Your task to perform on an android device: Search for Mexican restaurants on Maps Image 0: 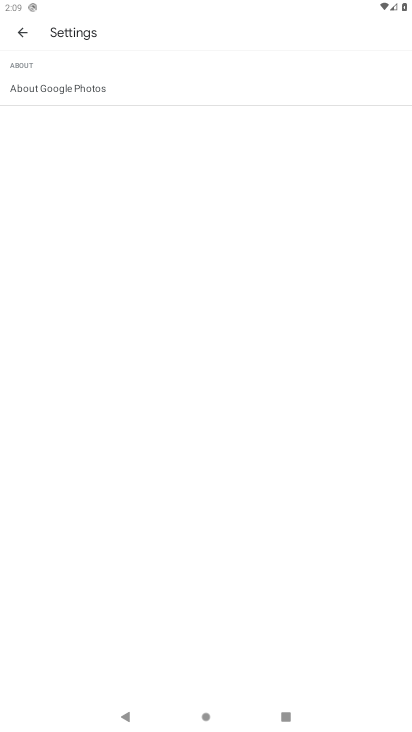
Step 0: press home button
Your task to perform on an android device: Search for Mexican restaurants on Maps Image 1: 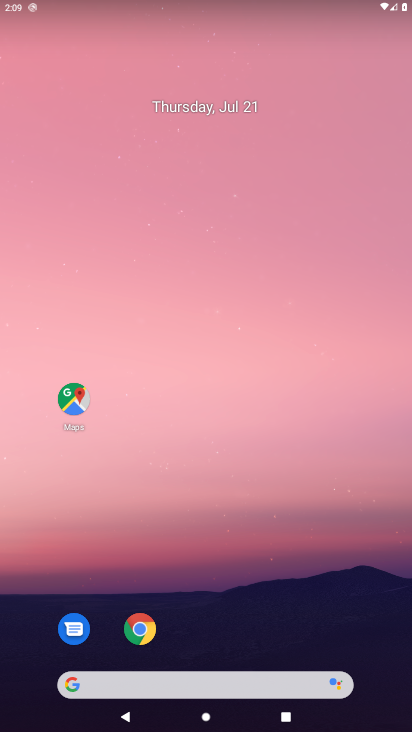
Step 1: click (70, 407)
Your task to perform on an android device: Search for Mexican restaurants on Maps Image 2: 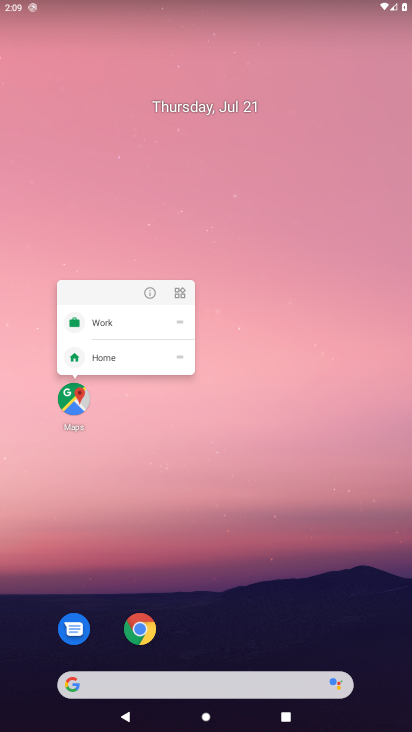
Step 2: click (76, 396)
Your task to perform on an android device: Search for Mexican restaurants on Maps Image 3: 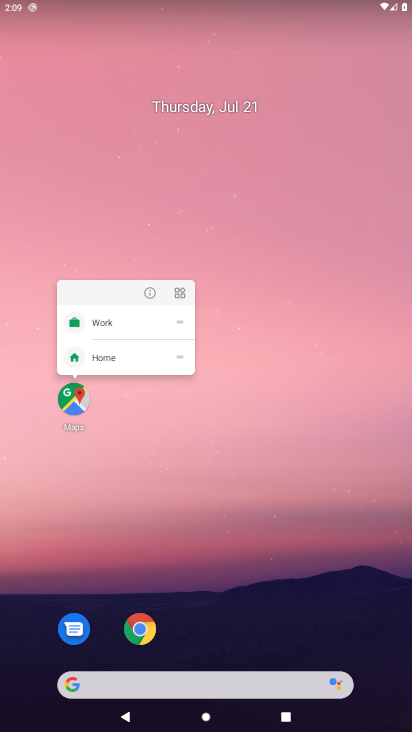
Step 3: click (73, 392)
Your task to perform on an android device: Search for Mexican restaurants on Maps Image 4: 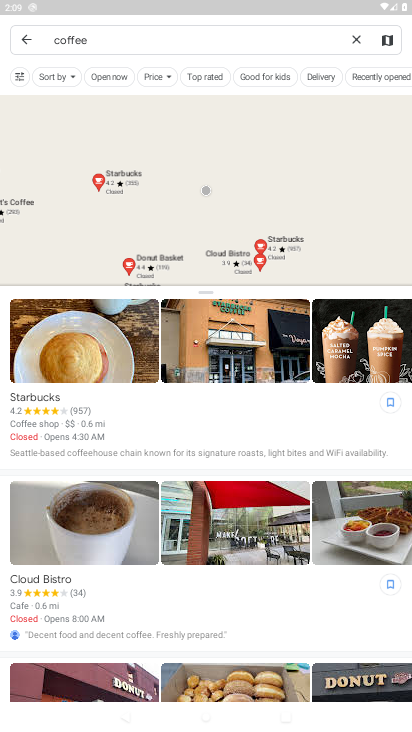
Step 4: click (22, 44)
Your task to perform on an android device: Search for Mexican restaurants on Maps Image 5: 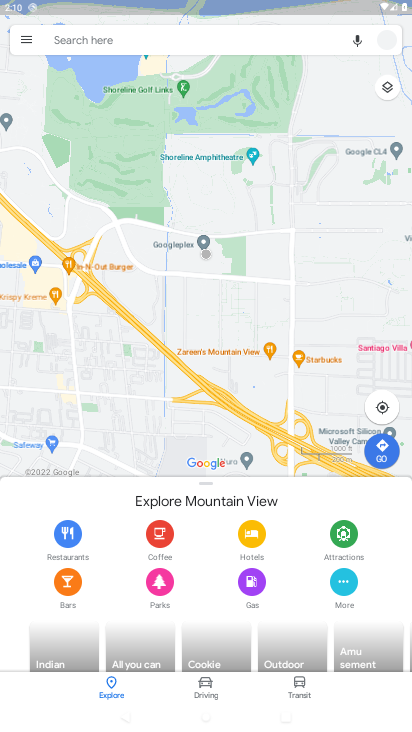
Step 5: click (76, 35)
Your task to perform on an android device: Search for Mexican restaurants on Maps Image 6: 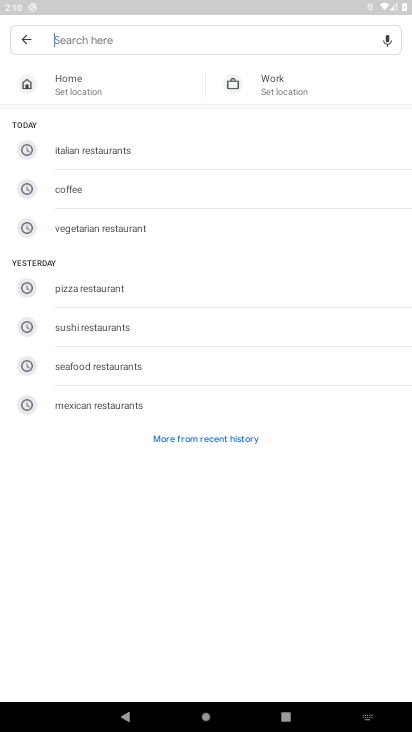
Step 6: click (78, 396)
Your task to perform on an android device: Search for Mexican restaurants on Maps Image 7: 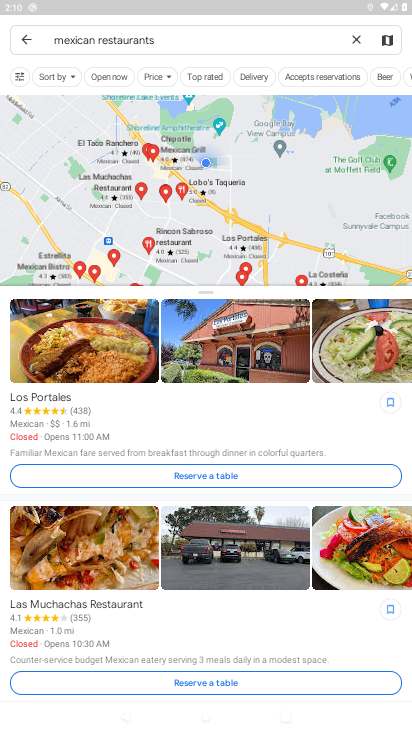
Step 7: task complete